Your task to perform on an android device: Go to calendar. Show me events next week Image 0: 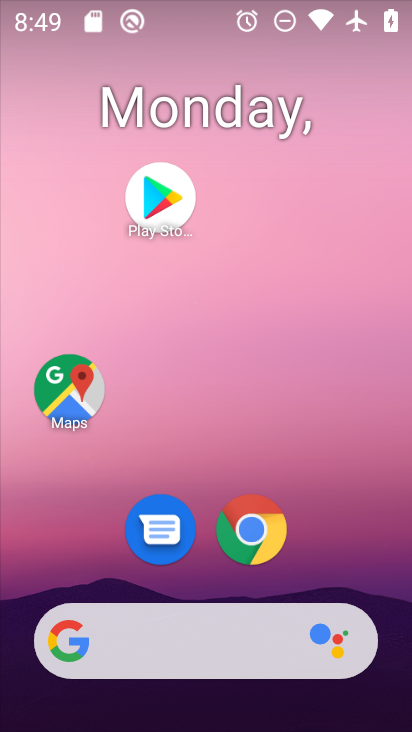
Step 0: drag from (204, 468) to (216, 194)
Your task to perform on an android device: Go to calendar. Show me events next week Image 1: 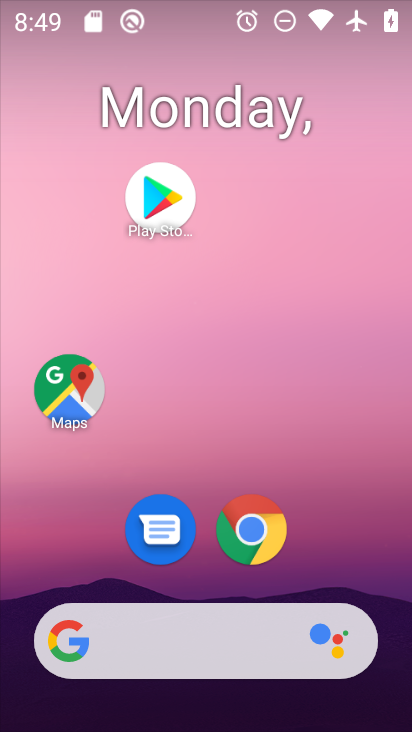
Step 1: drag from (316, 492) to (266, 62)
Your task to perform on an android device: Go to calendar. Show me events next week Image 2: 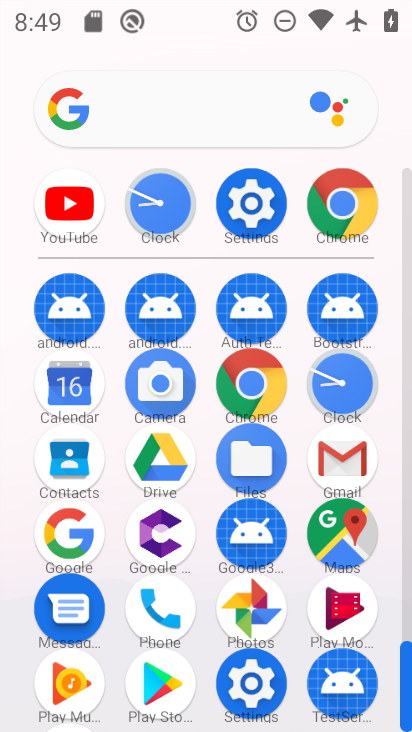
Step 2: click (72, 391)
Your task to perform on an android device: Go to calendar. Show me events next week Image 3: 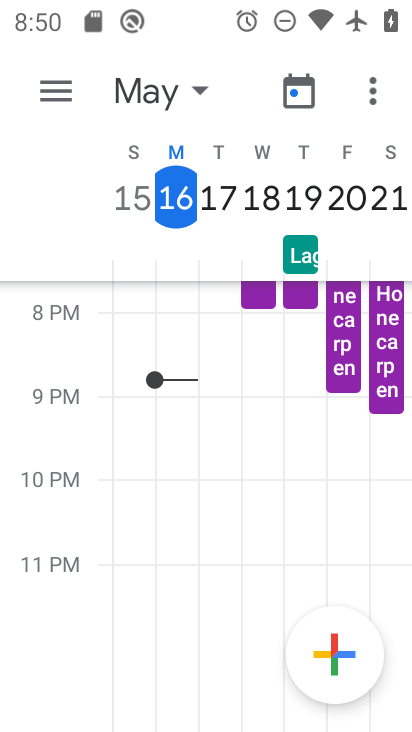
Step 3: click (196, 84)
Your task to perform on an android device: Go to calendar. Show me events next week Image 4: 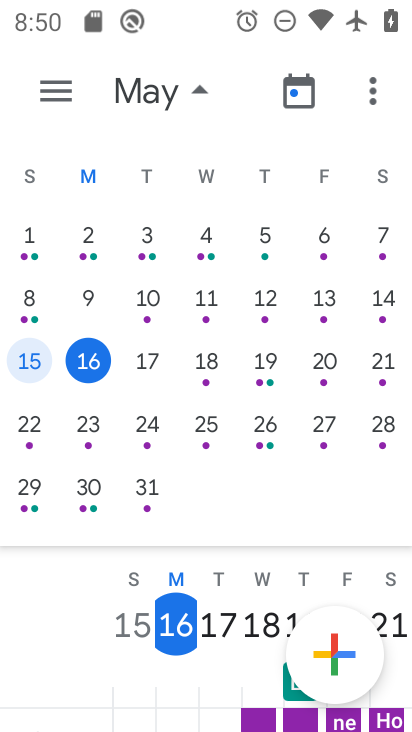
Step 4: click (140, 417)
Your task to perform on an android device: Go to calendar. Show me events next week Image 5: 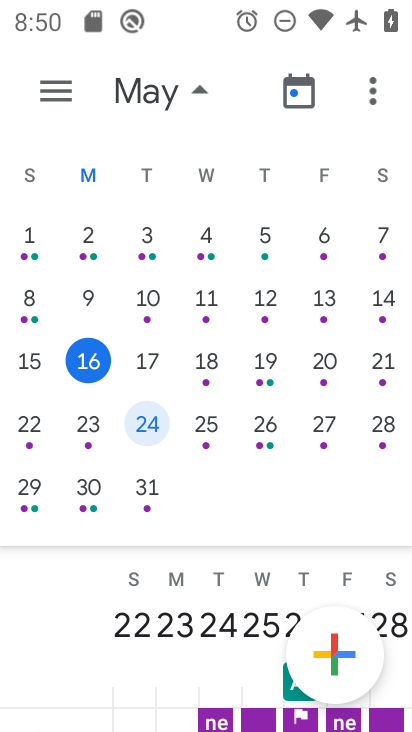
Step 5: task complete